Your task to perform on an android device: Toggle the flashlight Image 0: 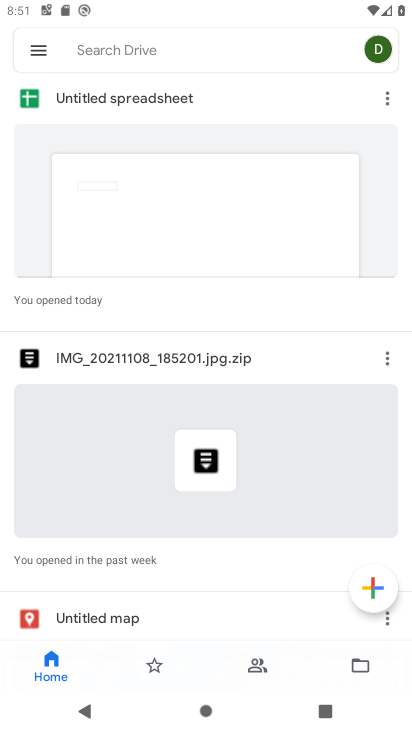
Step 0: press home button
Your task to perform on an android device: Toggle the flashlight Image 1: 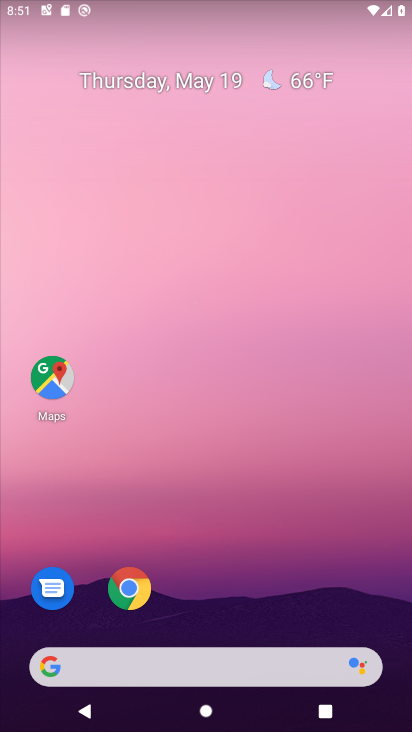
Step 1: drag from (337, 2) to (278, 448)
Your task to perform on an android device: Toggle the flashlight Image 2: 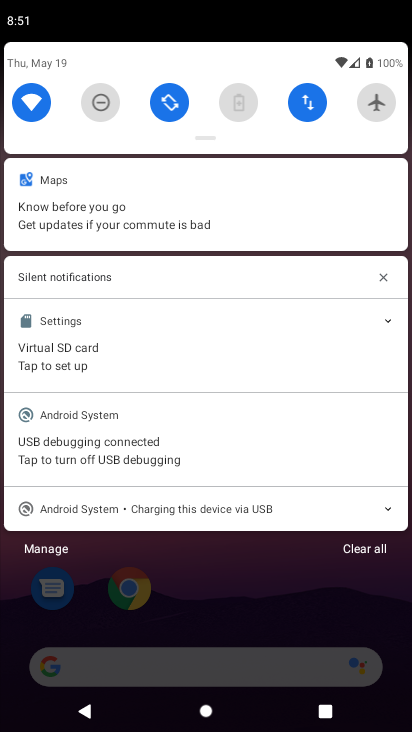
Step 2: drag from (191, 67) to (170, 432)
Your task to perform on an android device: Toggle the flashlight Image 3: 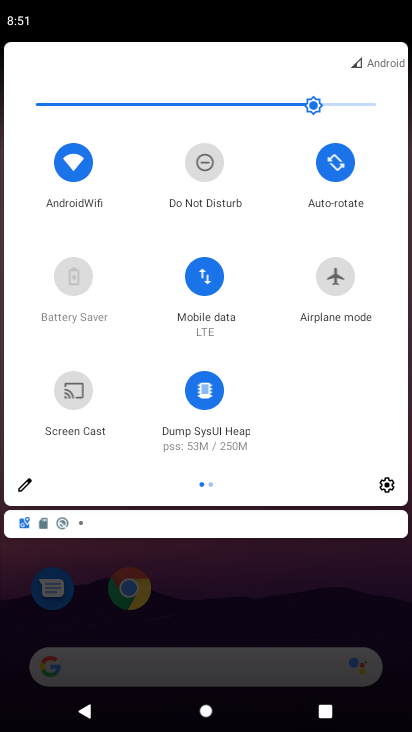
Step 3: click (44, 482)
Your task to perform on an android device: Toggle the flashlight Image 4: 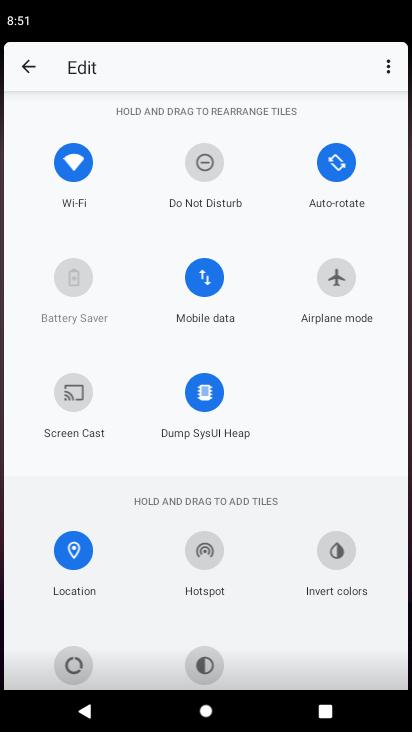
Step 4: task complete